Your task to perform on an android device: turn pop-ups on in chrome Image 0: 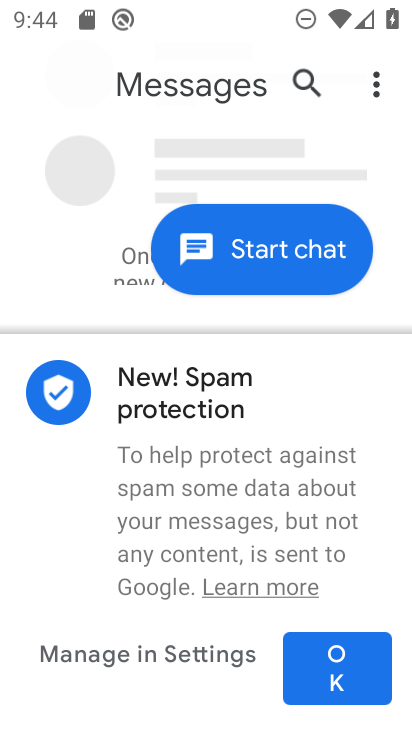
Step 0: press home button
Your task to perform on an android device: turn pop-ups on in chrome Image 1: 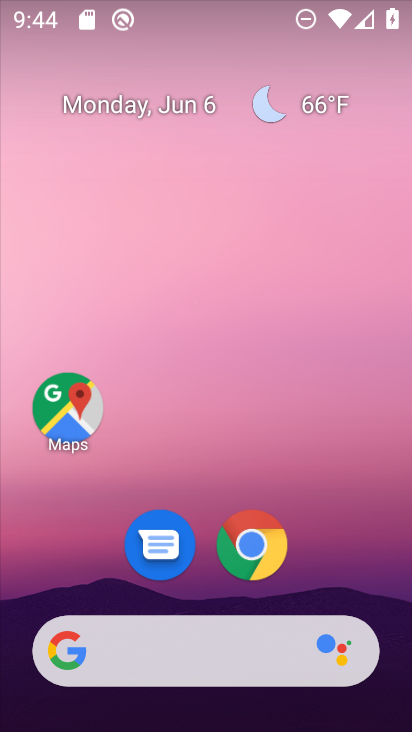
Step 1: drag from (213, 565) to (193, 91)
Your task to perform on an android device: turn pop-ups on in chrome Image 2: 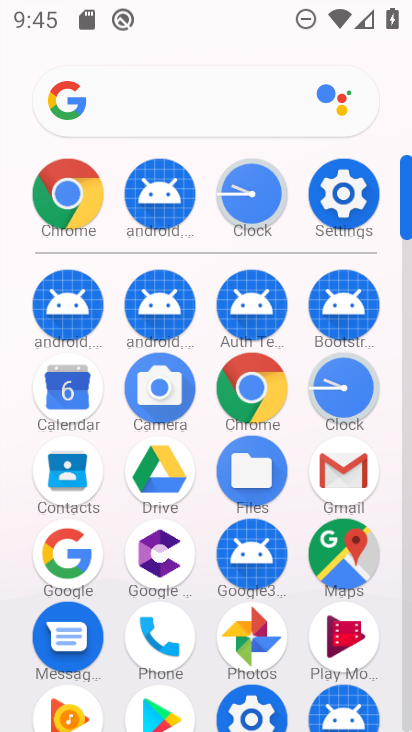
Step 2: click (250, 393)
Your task to perform on an android device: turn pop-ups on in chrome Image 3: 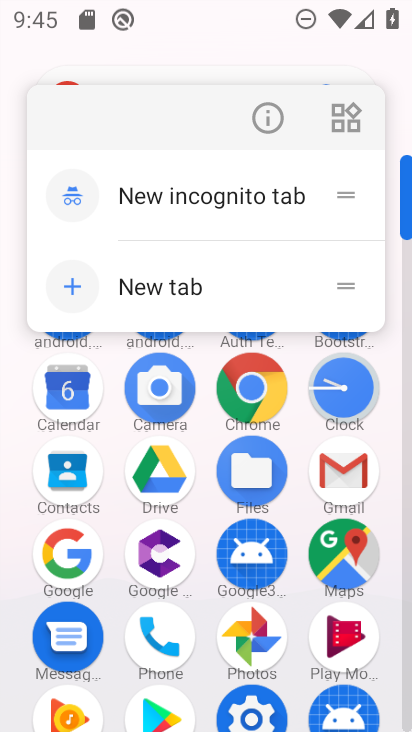
Step 3: click (256, 124)
Your task to perform on an android device: turn pop-ups on in chrome Image 4: 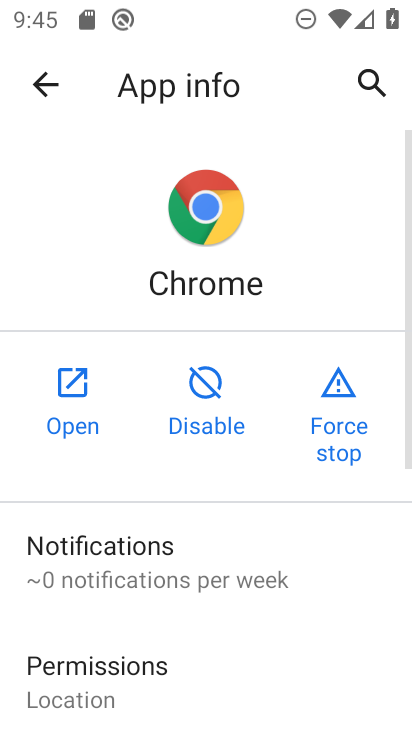
Step 4: click (60, 412)
Your task to perform on an android device: turn pop-ups on in chrome Image 5: 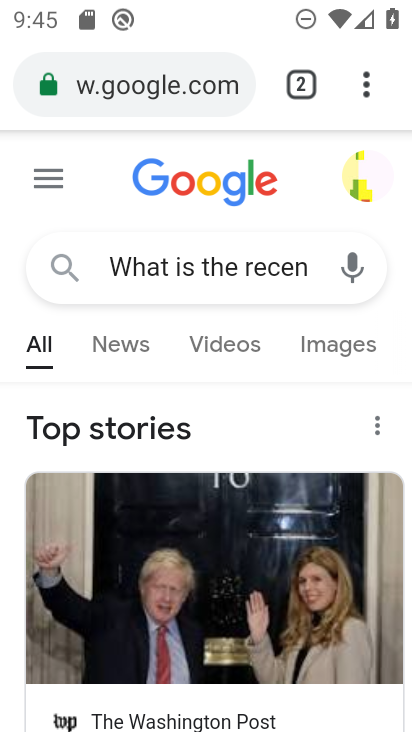
Step 5: click (362, 78)
Your task to perform on an android device: turn pop-ups on in chrome Image 6: 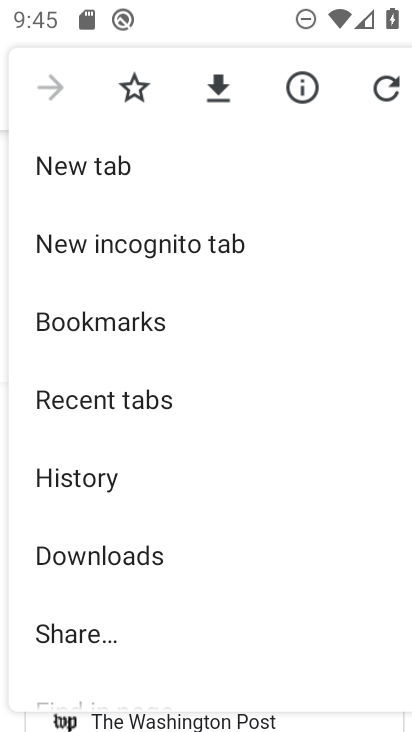
Step 6: drag from (122, 626) to (67, 274)
Your task to perform on an android device: turn pop-ups on in chrome Image 7: 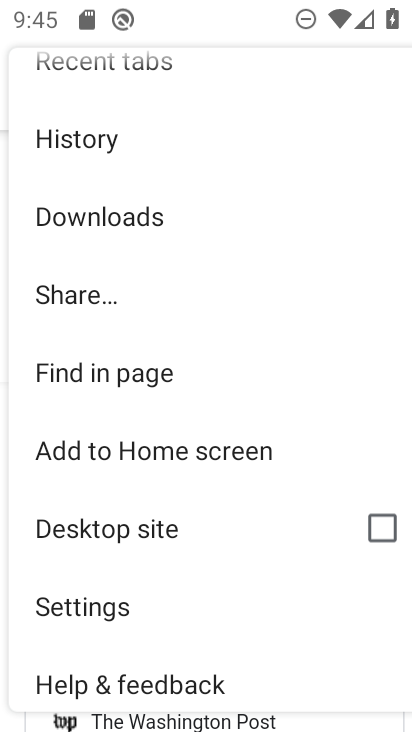
Step 7: click (116, 608)
Your task to perform on an android device: turn pop-ups on in chrome Image 8: 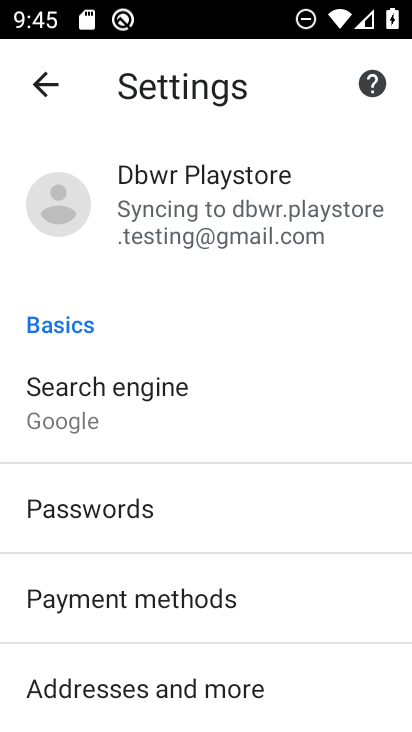
Step 8: drag from (101, 634) to (109, 239)
Your task to perform on an android device: turn pop-ups on in chrome Image 9: 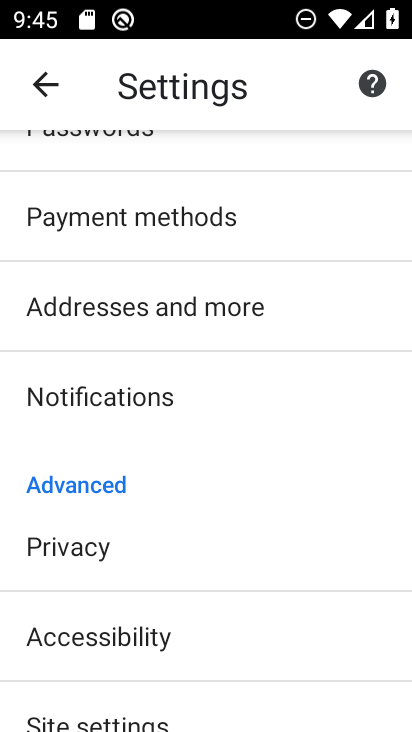
Step 9: drag from (109, 673) to (151, 352)
Your task to perform on an android device: turn pop-ups on in chrome Image 10: 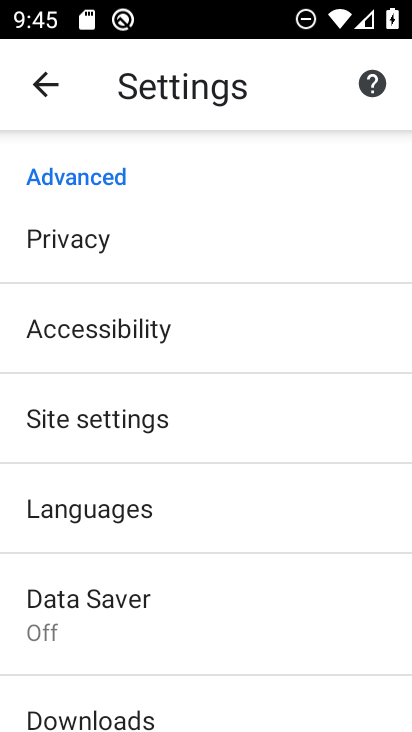
Step 10: click (117, 421)
Your task to perform on an android device: turn pop-ups on in chrome Image 11: 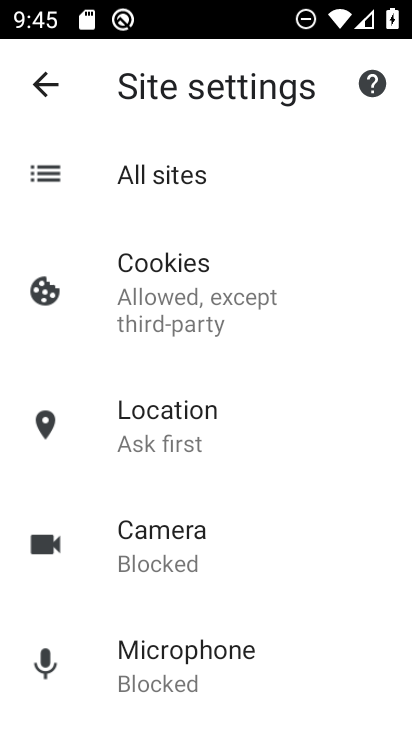
Step 11: drag from (165, 613) to (187, 267)
Your task to perform on an android device: turn pop-ups on in chrome Image 12: 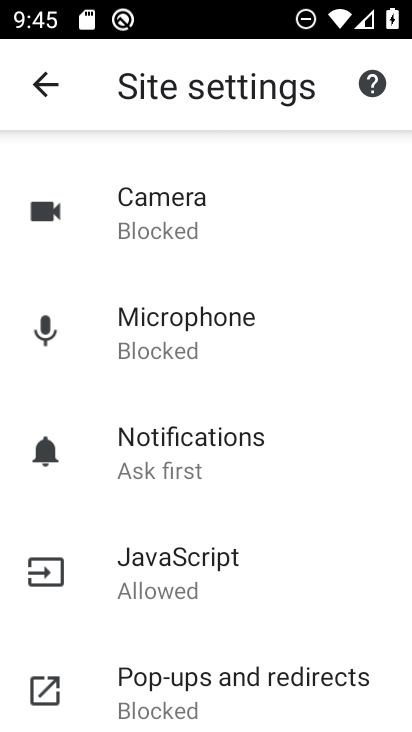
Step 12: click (229, 684)
Your task to perform on an android device: turn pop-ups on in chrome Image 13: 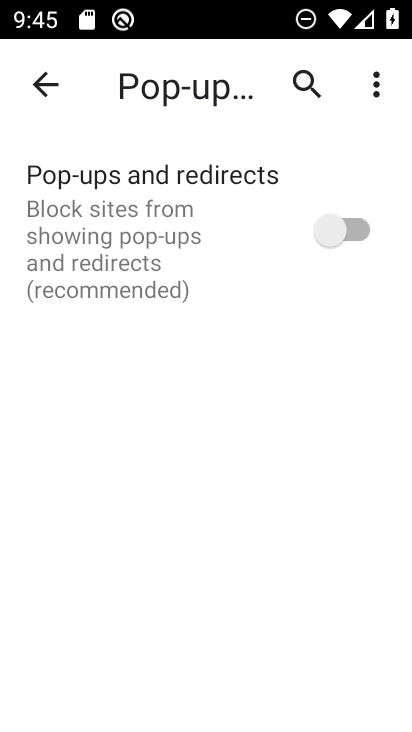
Step 13: click (334, 236)
Your task to perform on an android device: turn pop-ups on in chrome Image 14: 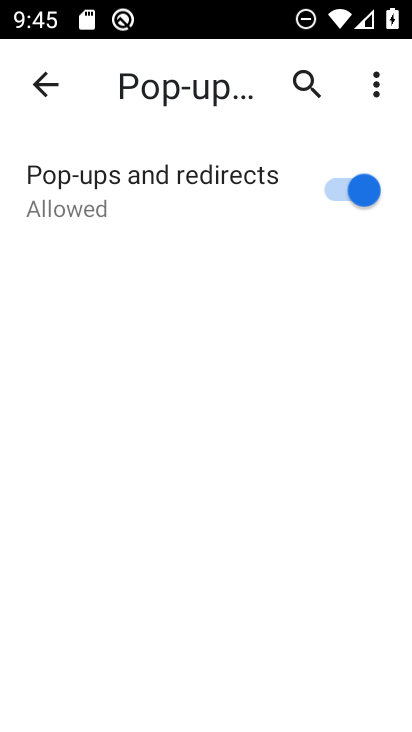
Step 14: task complete